Your task to perform on an android device: What's the weather today? Image 0: 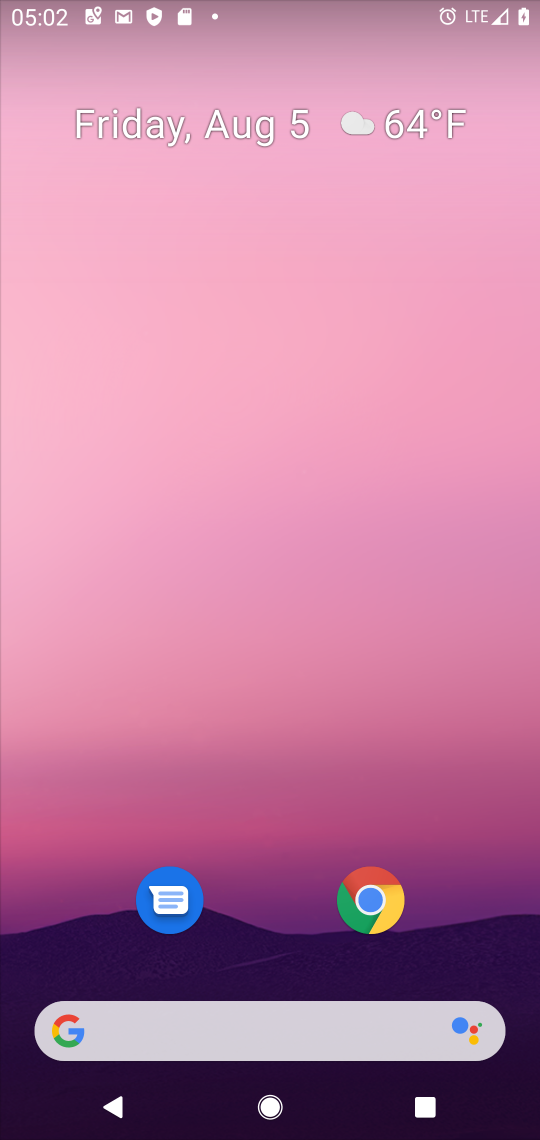
Step 0: click (210, 1034)
Your task to perform on an android device: What's the weather today? Image 1: 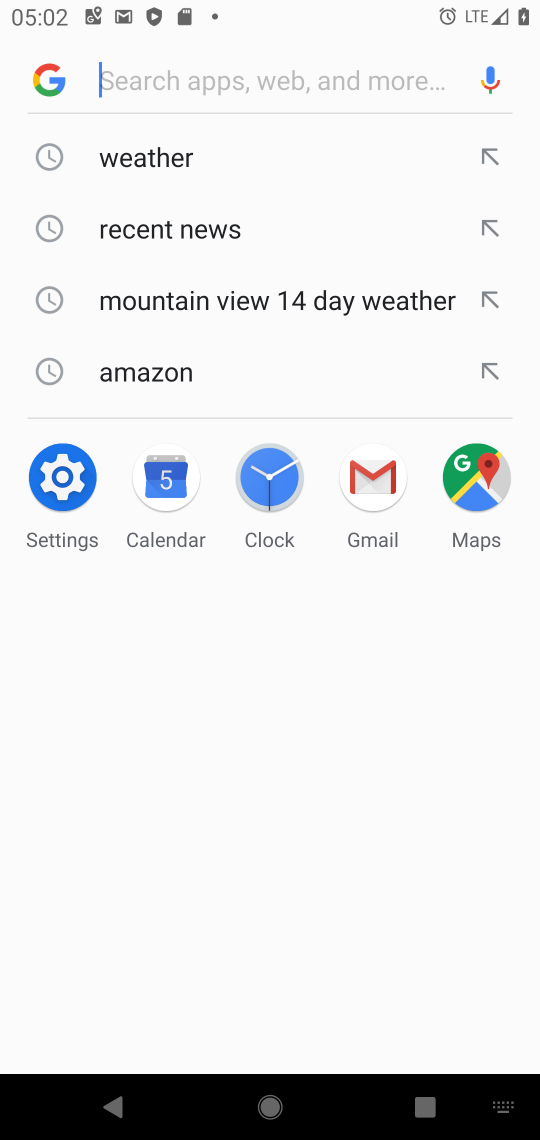
Step 1: click (222, 172)
Your task to perform on an android device: What's the weather today? Image 2: 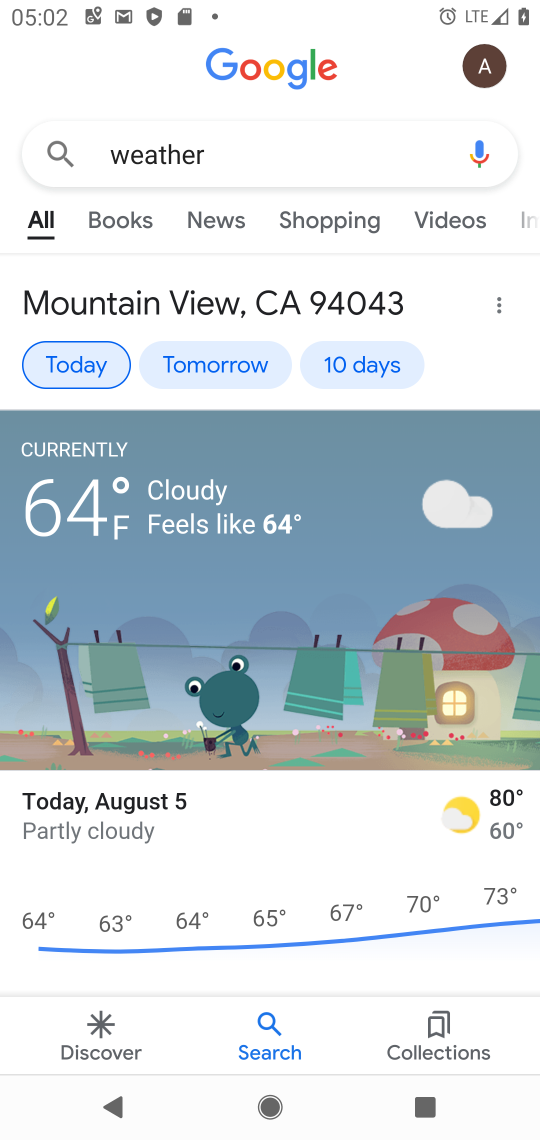
Step 2: click (69, 367)
Your task to perform on an android device: What's the weather today? Image 3: 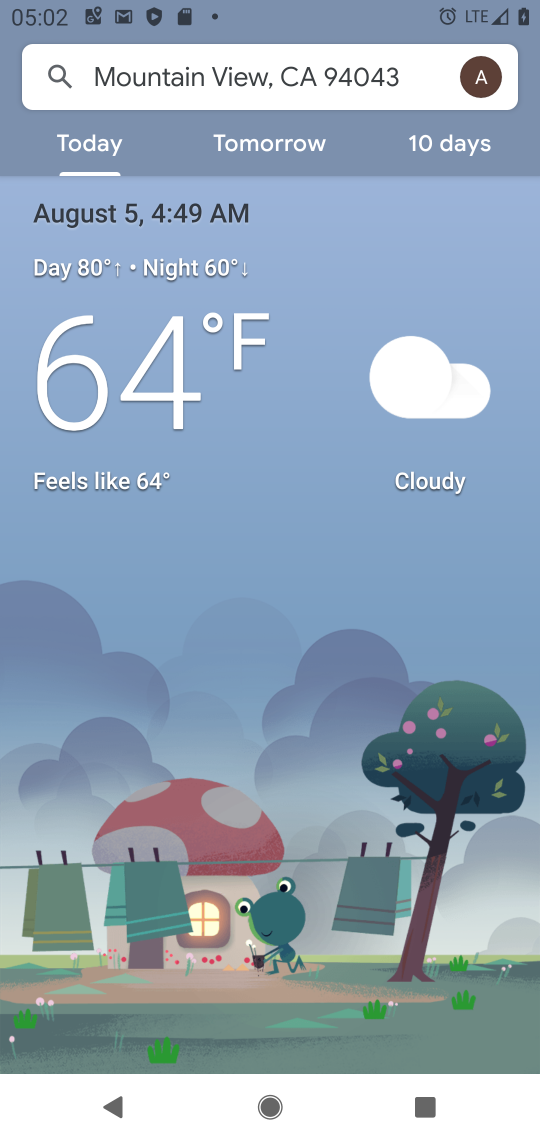
Step 3: task complete